Your task to perform on an android device: turn on airplane mode Image 0: 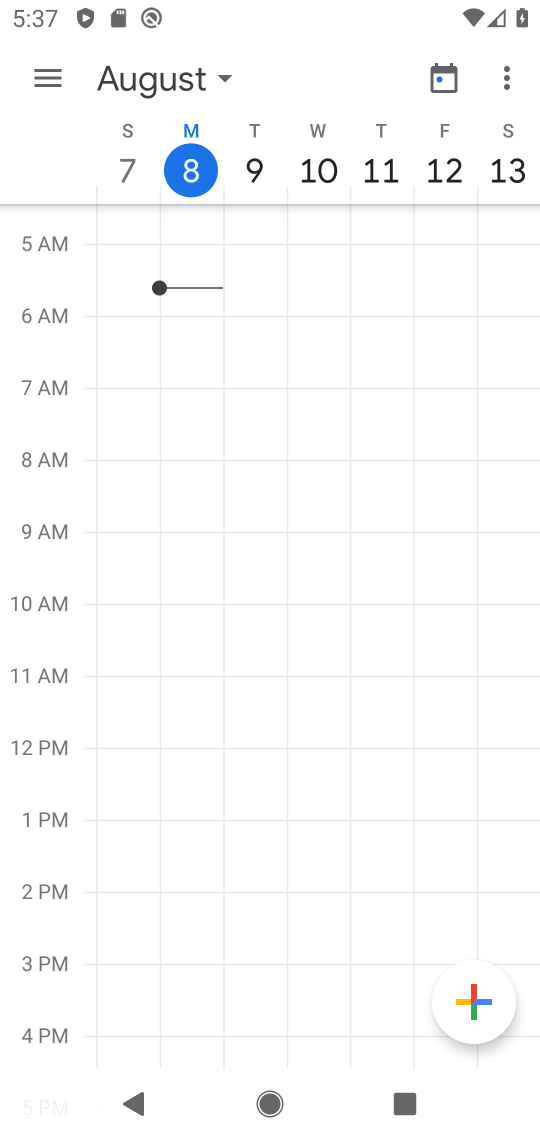
Step 0: press home button
Your task to perform on an android device: turn on airplane mode Image 1: 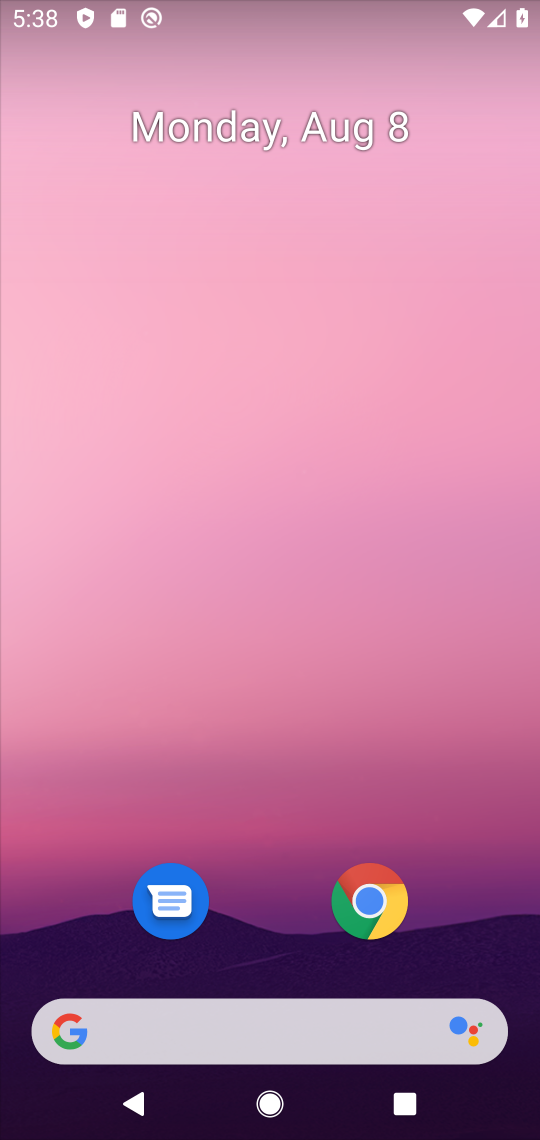
Step 1: drag from (523, 931) to (334, 163)
Your task to perform on an android device: turn on airplane mode Image 2: 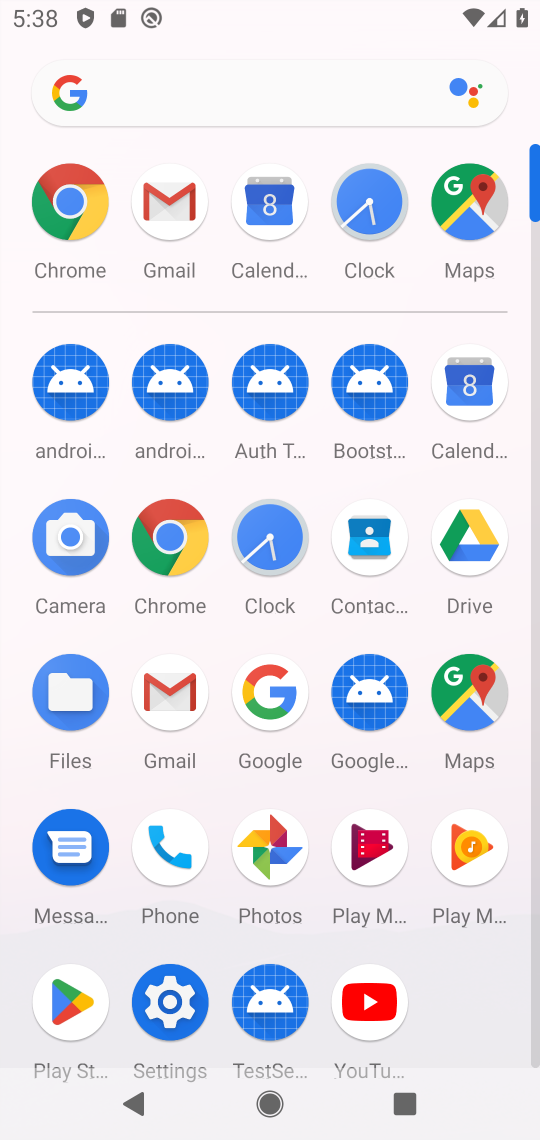
Step 2: click (164, 995)
Your task to perform on an android device: turn on airplane mode Image 3: 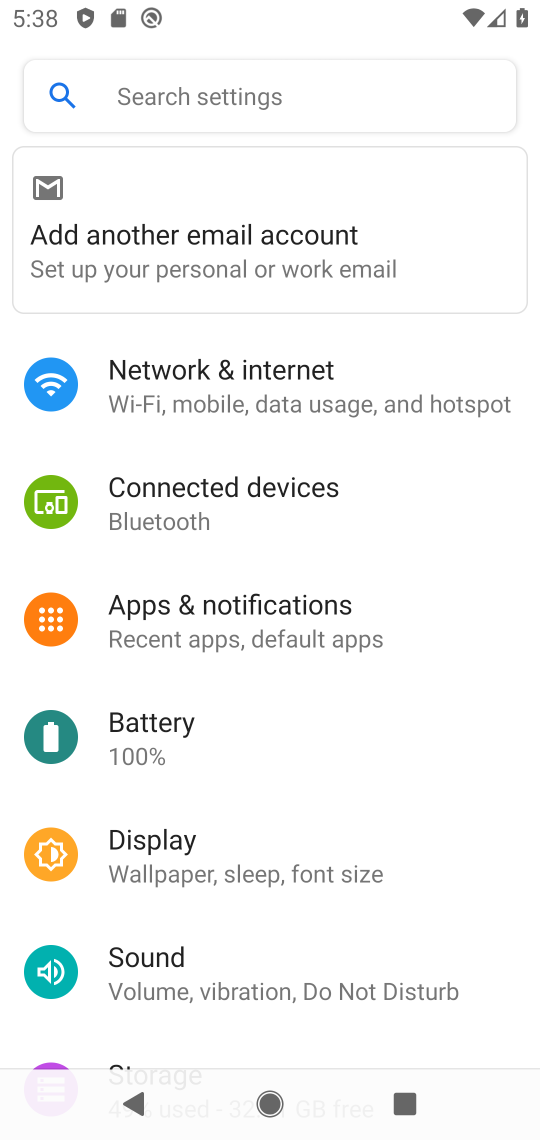
Step 3: click (347, 363)
Your task to perform on an android device: turn on airplane mode Image 4: 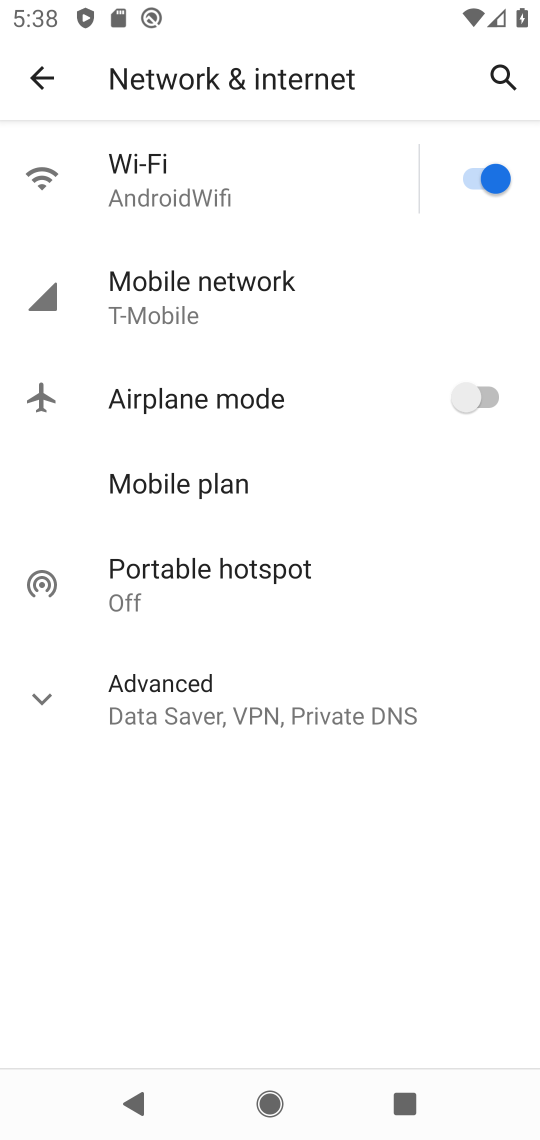
Step 4: click (499, 428)
Your task to perform on an android device: turn on airplane mode Image 5: 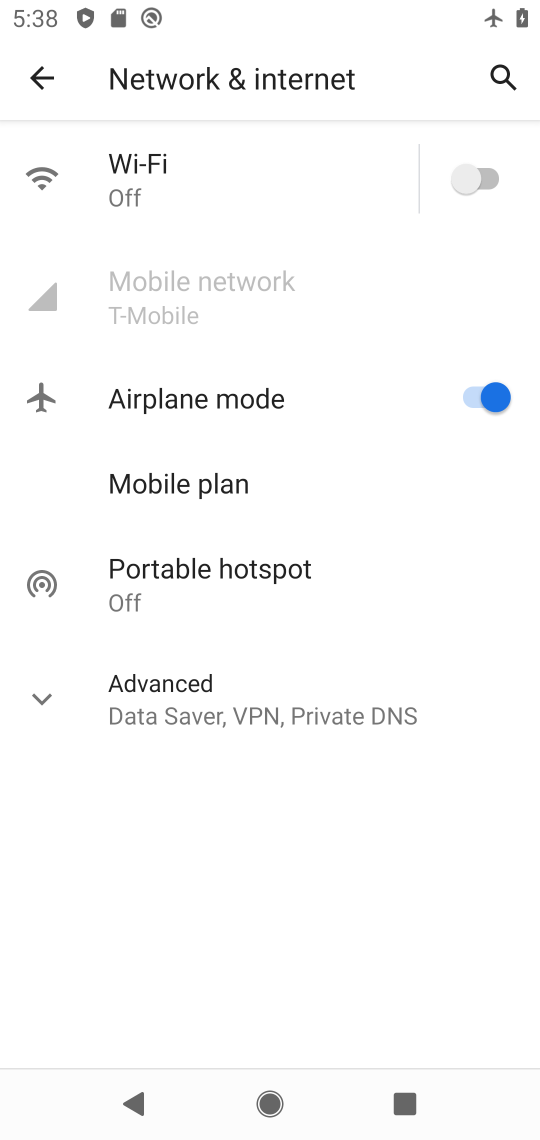
Step 5: task complete